Your task to perform on an android device: What's the weather going to be this weekend? Image 0: 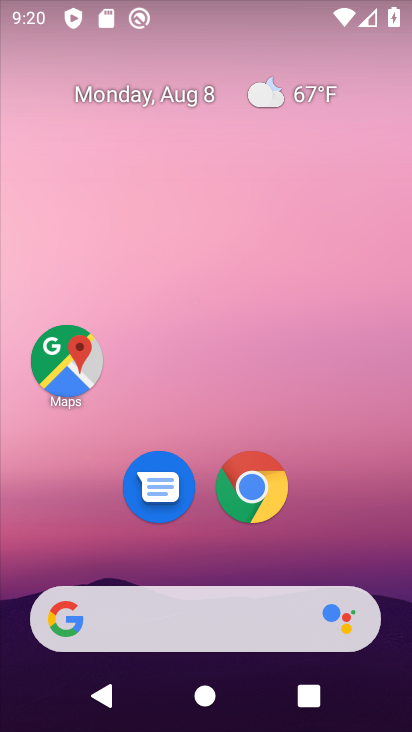
Step 0: drag from (221, 573) to (223, 43)
Your task to perform on an android device: What's the weather going to be this weekend? Image 1: 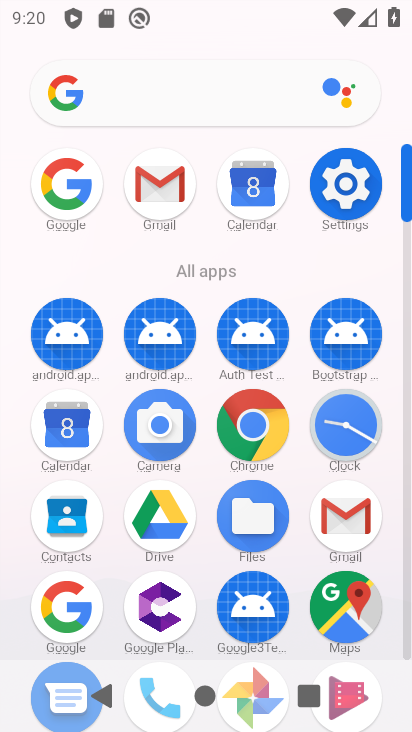
Step 1: click (70, 608)
Your task to perform on an android device: What's the weather going to be this weekend? Image 2: 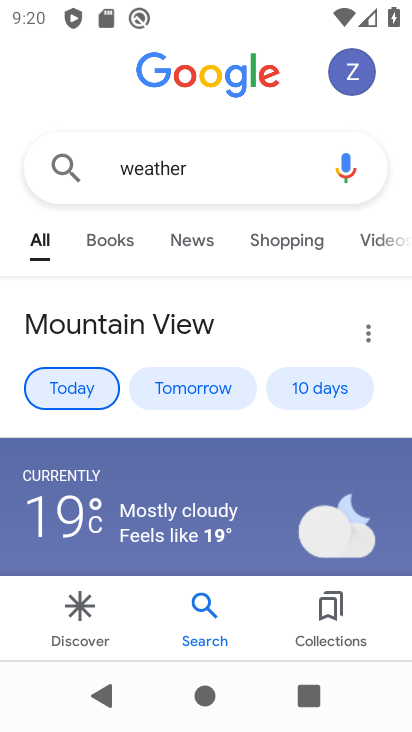
Step 2: click (312, 385)
Your task to perform on an android device: What's the weather going to be this weekend? Image 3: 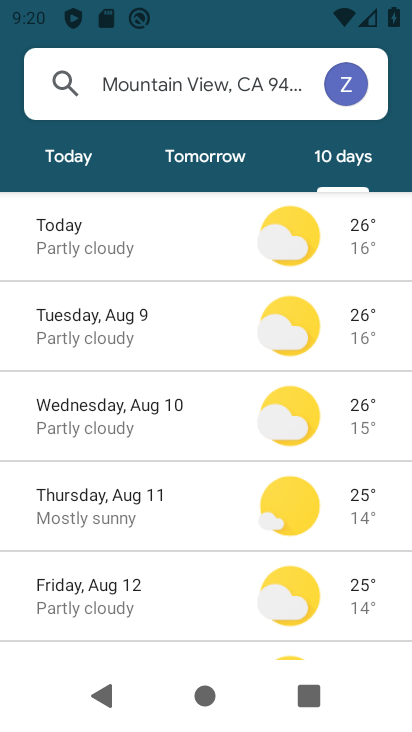
Step 3: drag from (166, 592) to (184, 276)
Your task to perform on an android device: What's the weather going to be this weekend? Image 4: 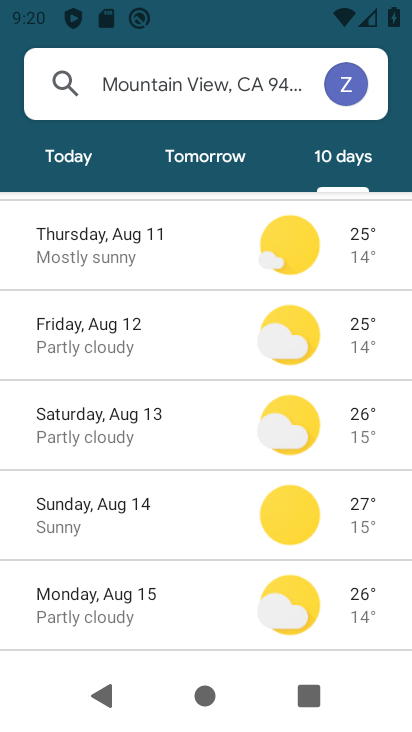
Step 4: click (130, 428)
Your task to perform on an android device: What's the weather going to be this weekend? Image 5: 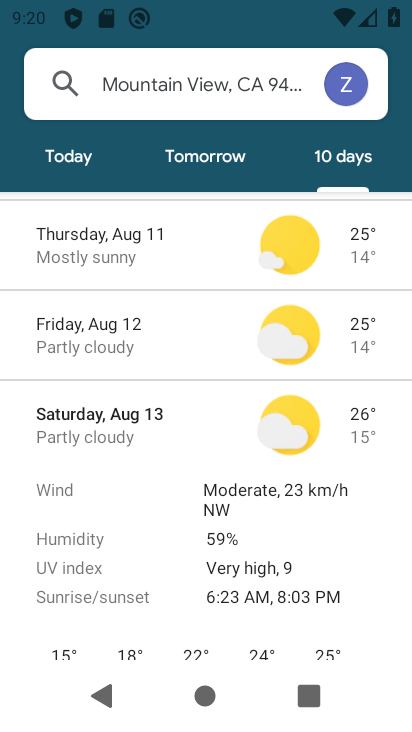
Step 5: task complete